Your task to perform on an android device: Open the stopwatch Image 0: 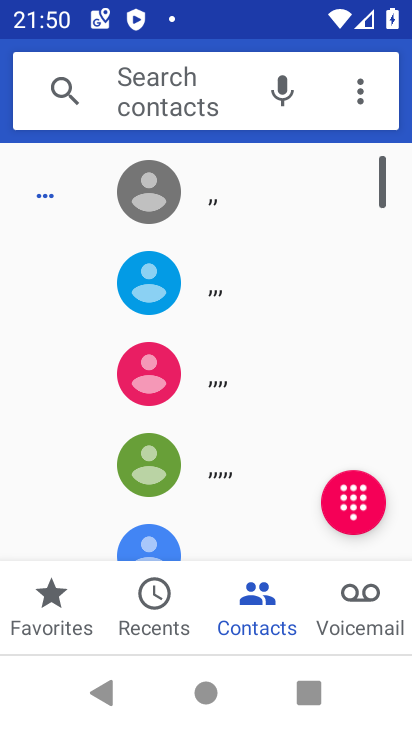
Step 0: press home button
Your task to perform on an android device: Open the stopwatch Image 1: 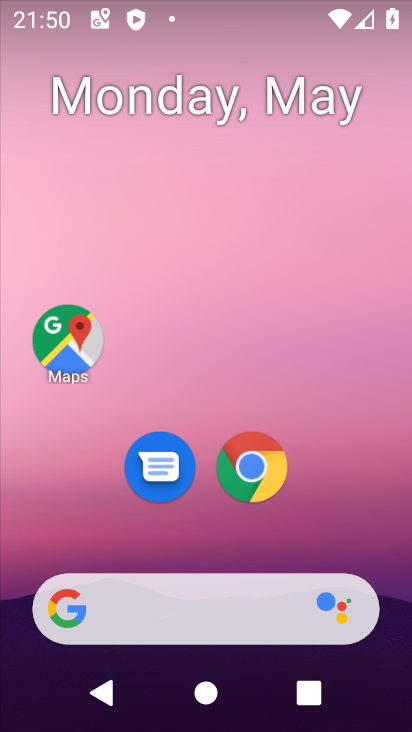
Step 1: drag from (275, 641) to (294, 123)
Your task to perform on an android device: Open the stopwatch Image 2: 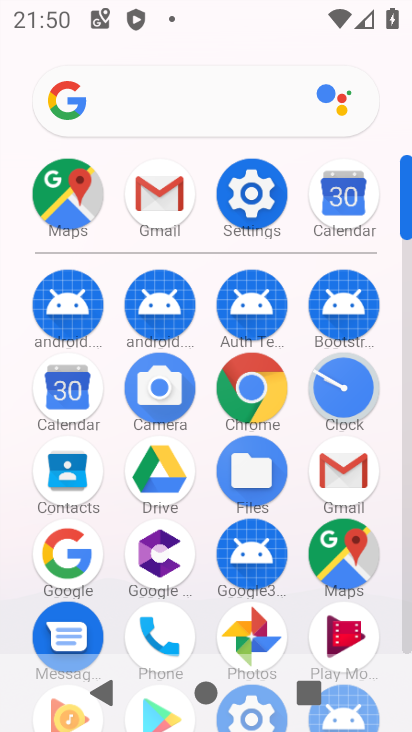
Step 2: click (349, 369)
Your task to perform on an android device: Open the stopwatch Image 3: 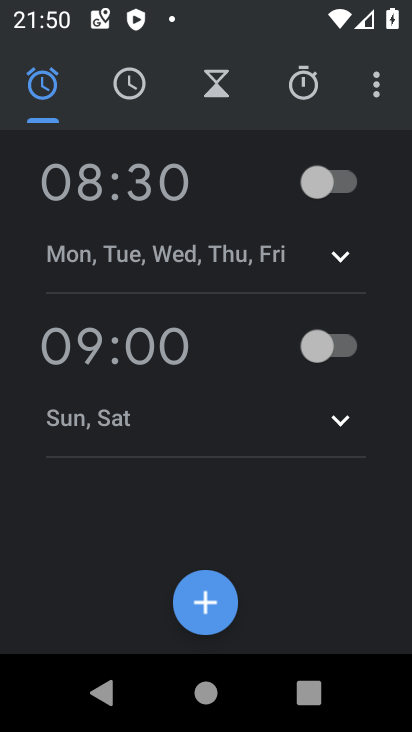
Step 3: click (213, 85)
Your task to perform on an android device: Open the stopwatch Image 4: 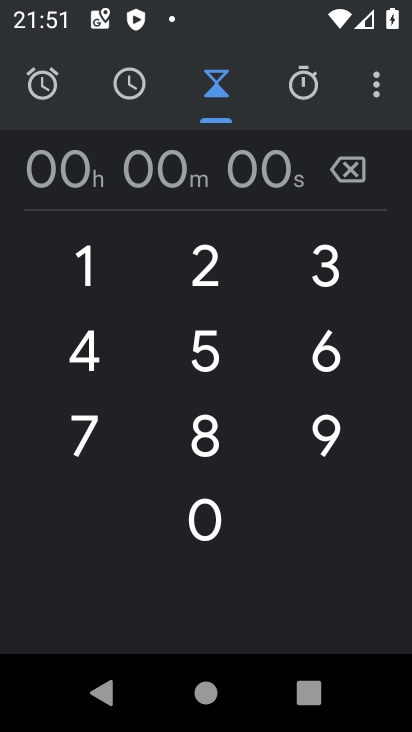
Step 4: click (306, 80)
Your task to perform on an android device: Open the stopwatch Image 5: 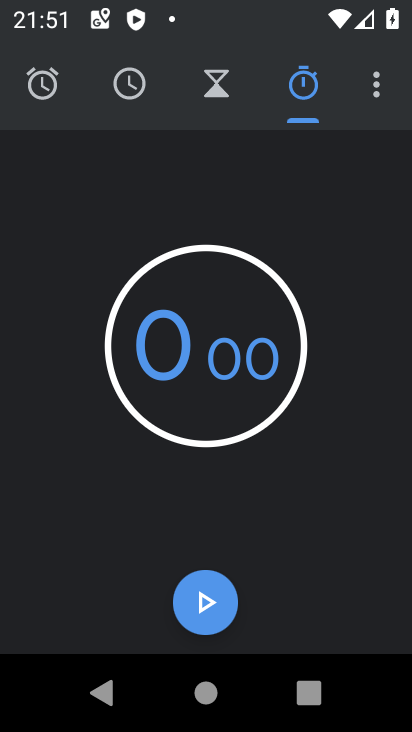
Step 5: click (198, 596)
Your task to perform on an android device: Open the stopwatch Image 6: 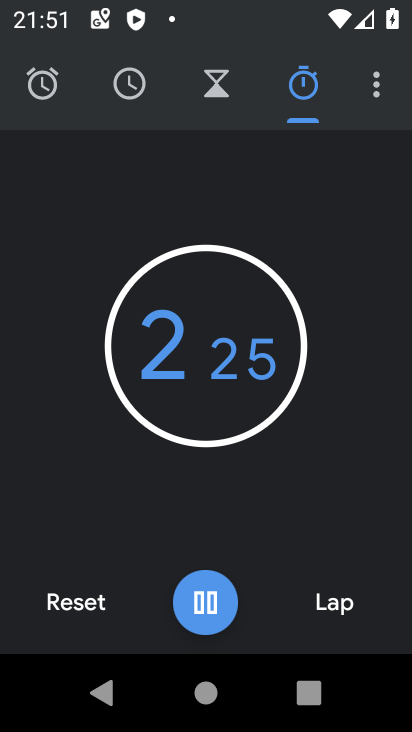
Step 6: task complete